Your task to perform on an android device: toggle pop-ups in chrome Image 0: 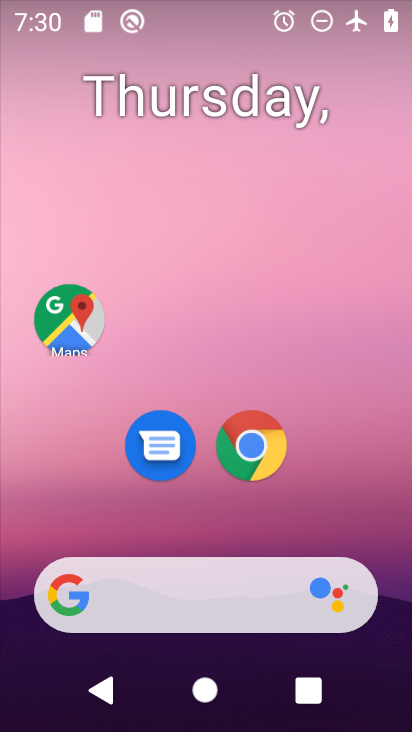
Step 0: click (249, 456)
Your task to perform on an android device: toggle pop-ups in chrome Image 1: 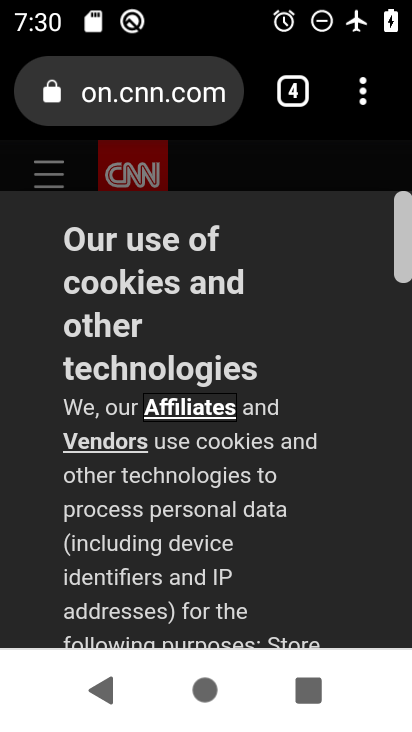
Step 1: click (364, 93)
Your task to perform on an android device: toggle pop-ups in chrome Image 2: 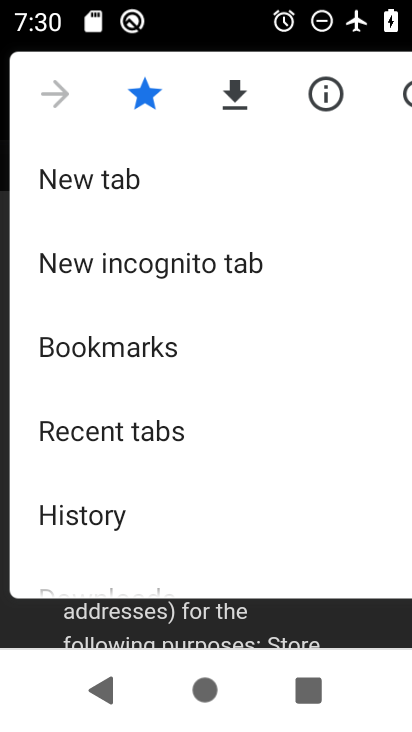
Step 2: drag from (245, 365) to (158, 110)
Your task to perform on an android device: toggle pop-ups in chrome Image 3: 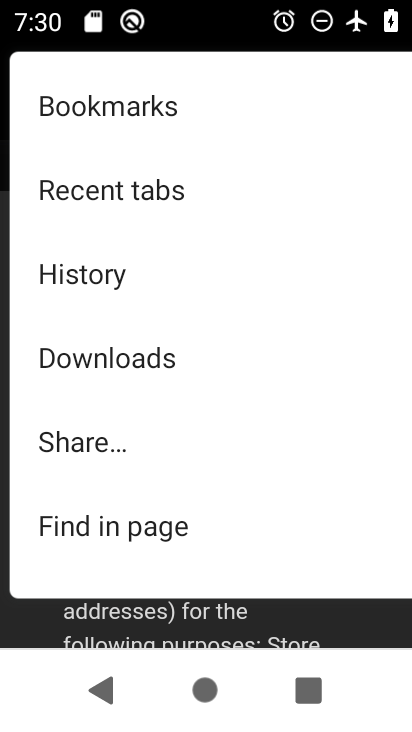
Step 3: drag from (273, 428) to (212, 56)
Your task to perform on an android device: toggle pop-ups in chrome Image 4: 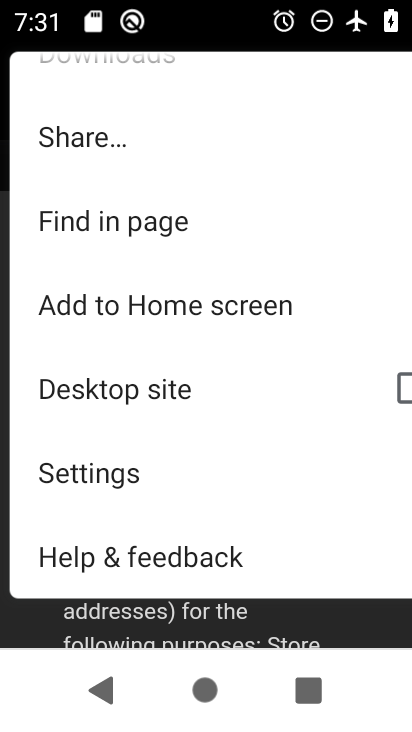
Step 4: click (110, 471)
Your task to perform on an android device: toggle pop-ups in chrome Image 5: 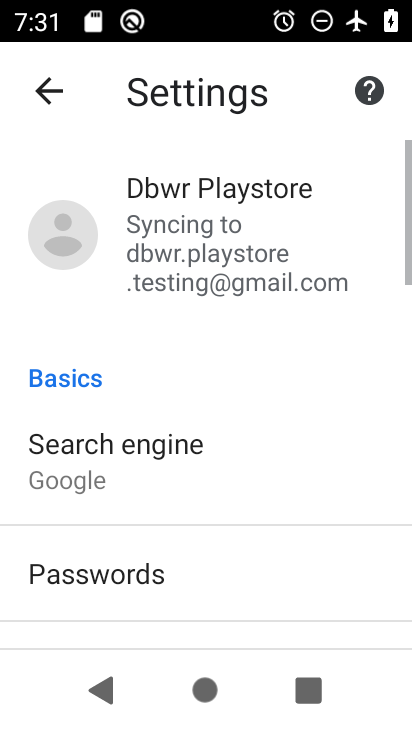
Step 5: drag from (203, 465) to (121, 224)
Your task to perform on an android device: toggle pop-ups in chrome Image 6: 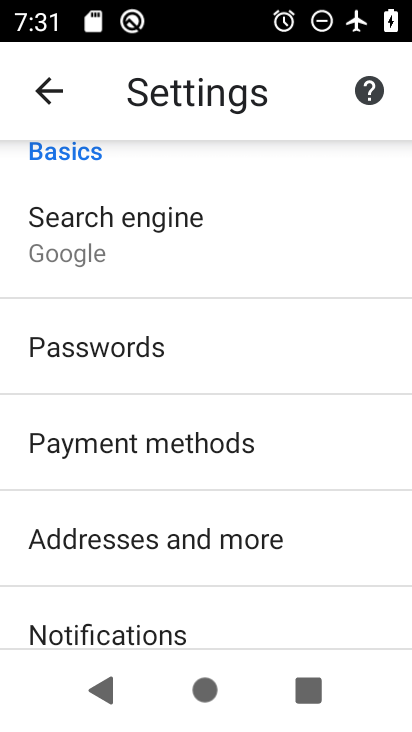
Step 6: drag from (302, 499) to (270, 305)
Your task to perform on an android device: toggle pop-ups in chrome Image 7: 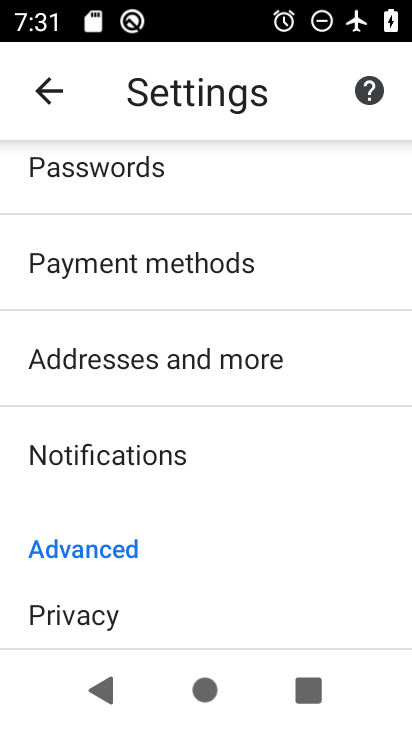
Step 7: drag from (296, 441) to (251, 255)
Your task to perform on an android device: toggle pop-ups in chrome Image 8: 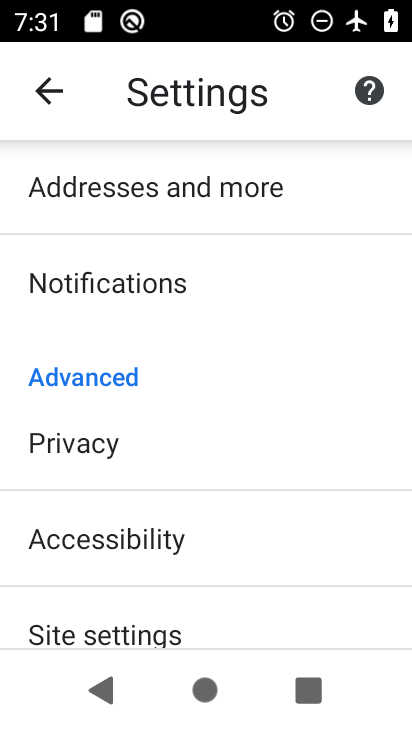
Step 8: drag from (233, 545) to (166, 187)
Your task to perform on an android device: toggle pop-ups in chrome Image 9: 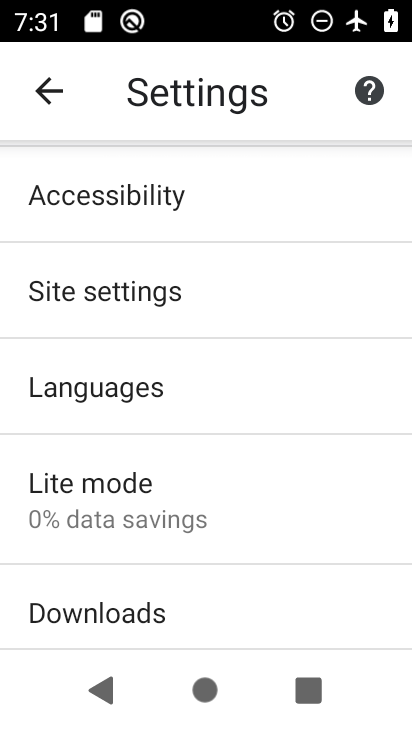
Step 9: click (97, 284)
Your task to perform on an android device: toggle pop-ups in chrome Image 10: 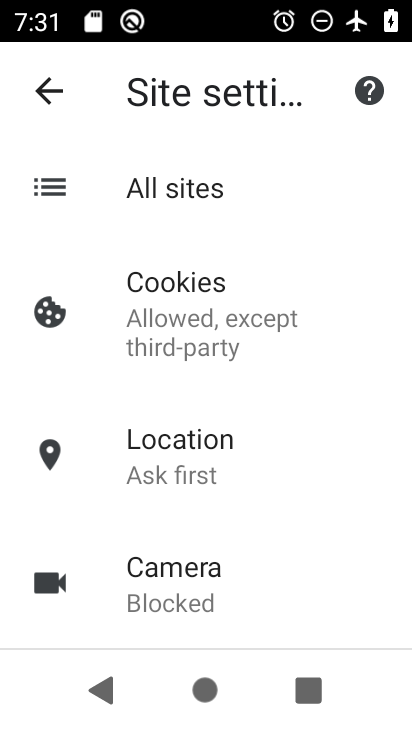
Step 10: drag from (279, 501) to (216, 236)
Your task to perform on an android device: toggle pop-ups in chrome Image 11: 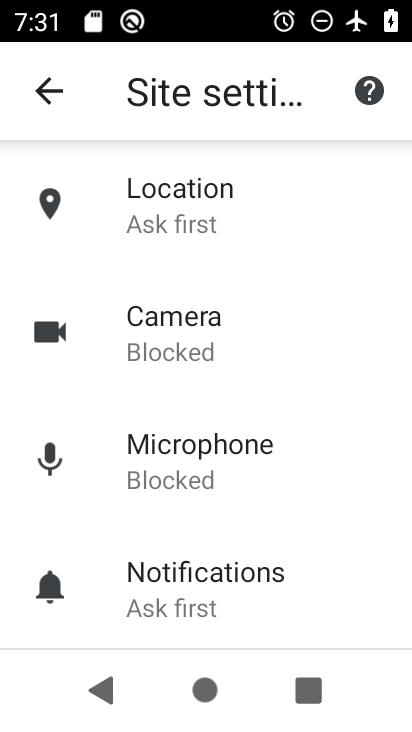
Step 11: drag from (334, 499) to (286, 195)
Your task to perform on an android device: toggle pop-ups in chrome Image 12: 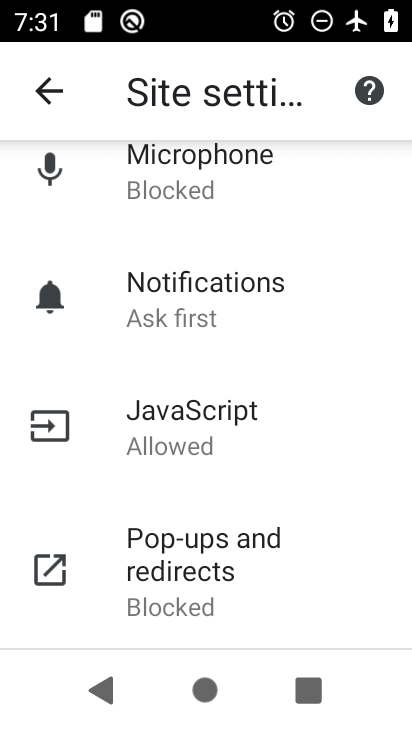
Step 12: click (194, 537)
Your task to perform on an android device: toggle pop-ups in chrome Image 13: 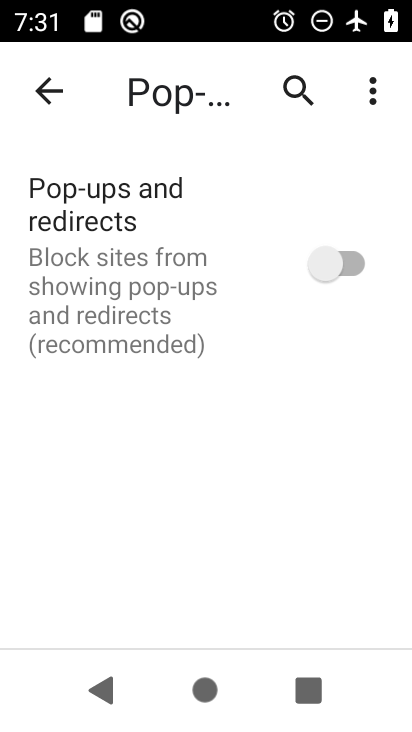
Step 13: click (330, 266)
Your task to perform on an android device: toggle pop-ups in chrome Image 14: 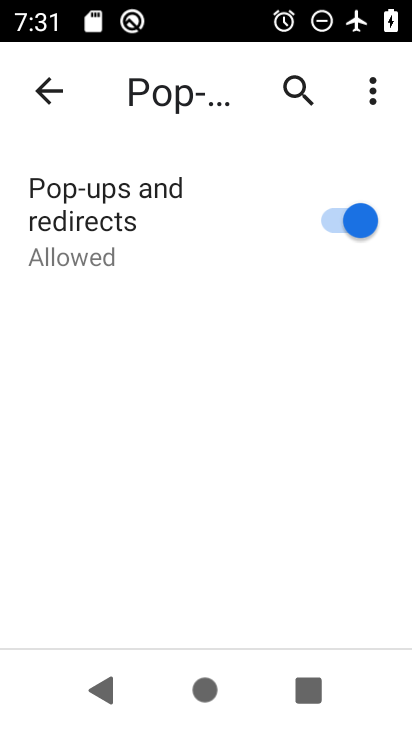
Step 14: task complete